Your task to perform on an android device: turn on priority inbox in the gmail app Image 0: 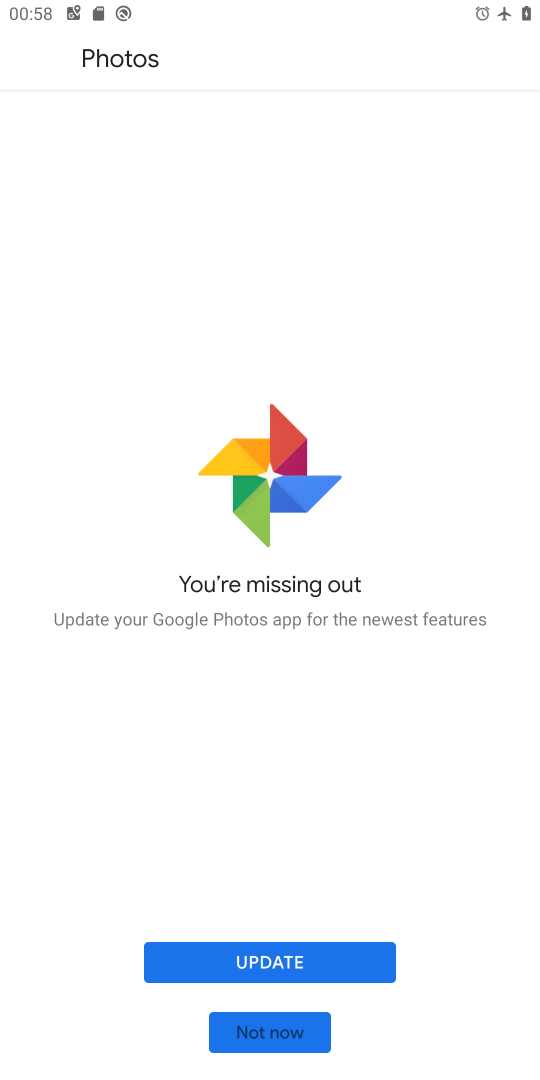
Step 0: press home button
Your task to perform on an android device: turn on priority inbox in the gmail app Image 1: 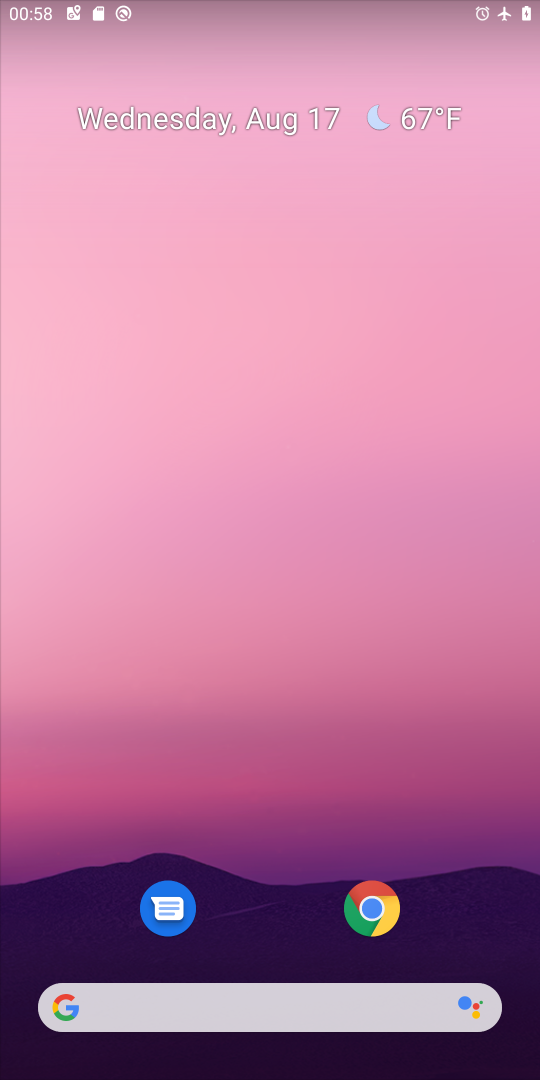
Step 1: drag from (255, 850) to (254, 116)
Your task to perform on an android device: turn on priority inbox in the gmail app Image 2: 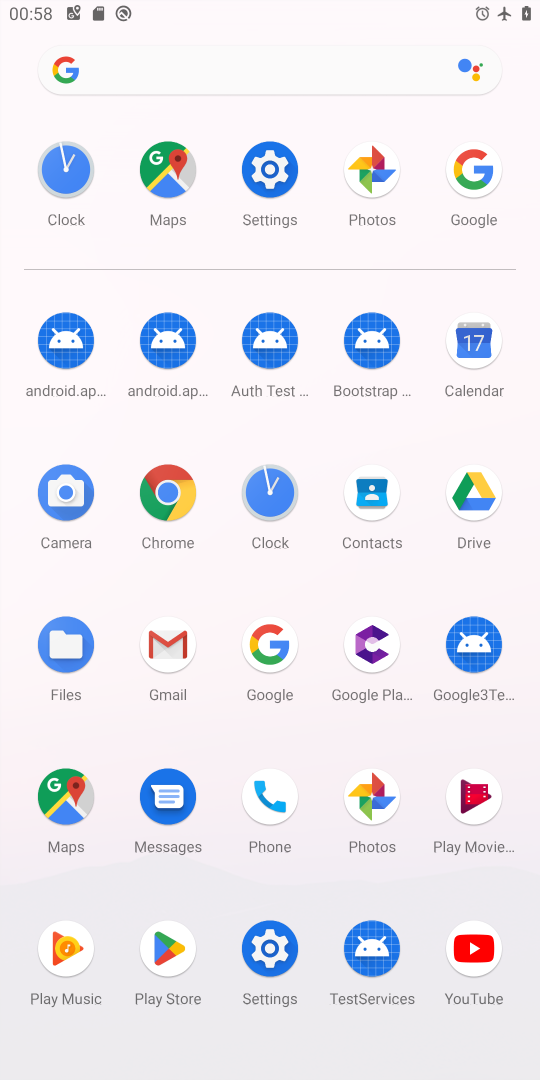
Step 2: click (159, 649)
Your task to perform on an android device: turn on priority inbox in the gmail app Image 3: 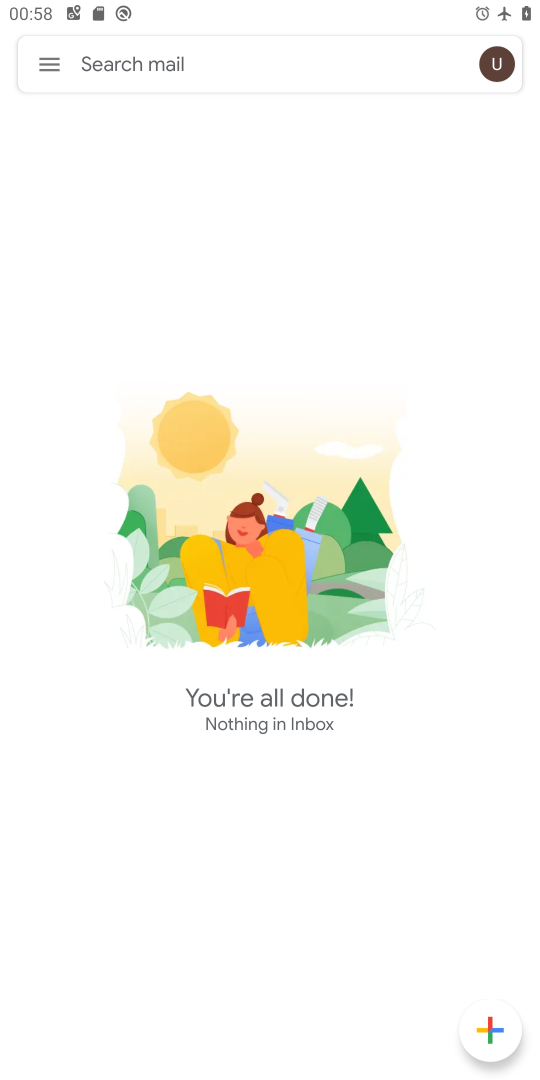
Step 3: click (44, 72)
Your task to perform on an android device: turn on priority inbox in the gmail app Image 4: 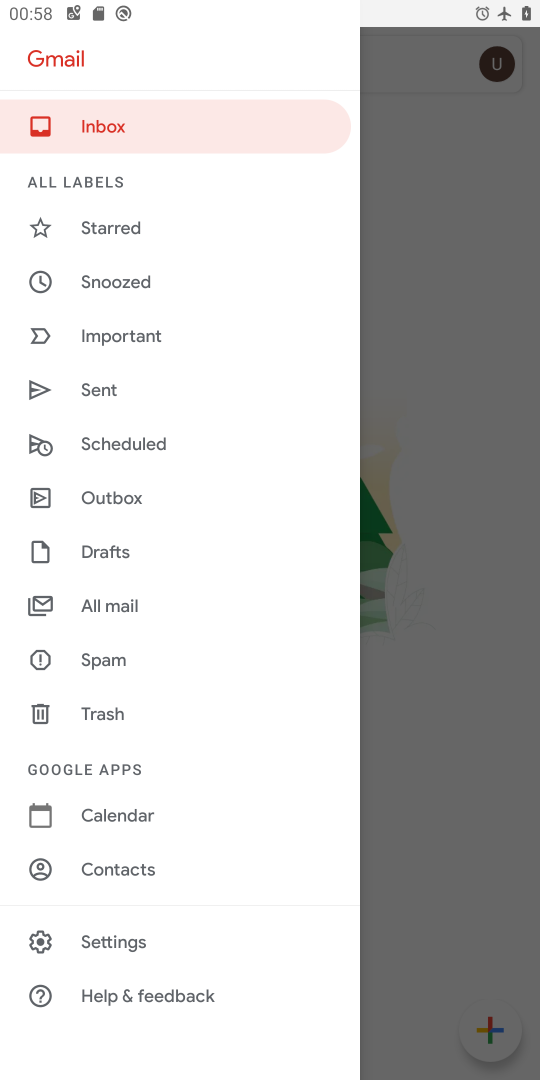
Step 4: click (106, 952)
Your task to perform on an android device: turn on priority inbox in the gmail app Image 5: 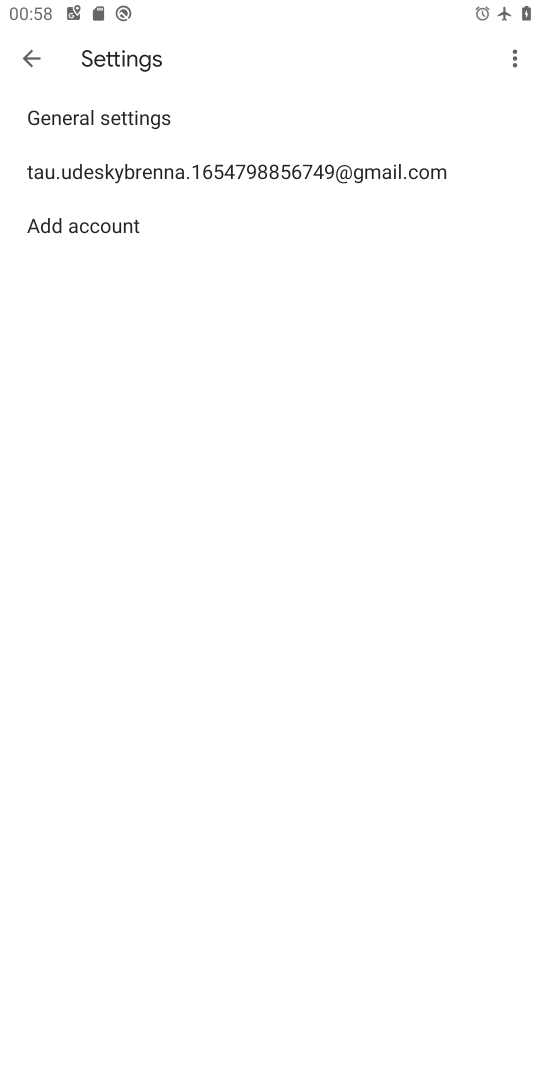
Step 5: click (242, 166)
Your task to perform on an android device: turn on priority inbox in the gmail app Image 6: 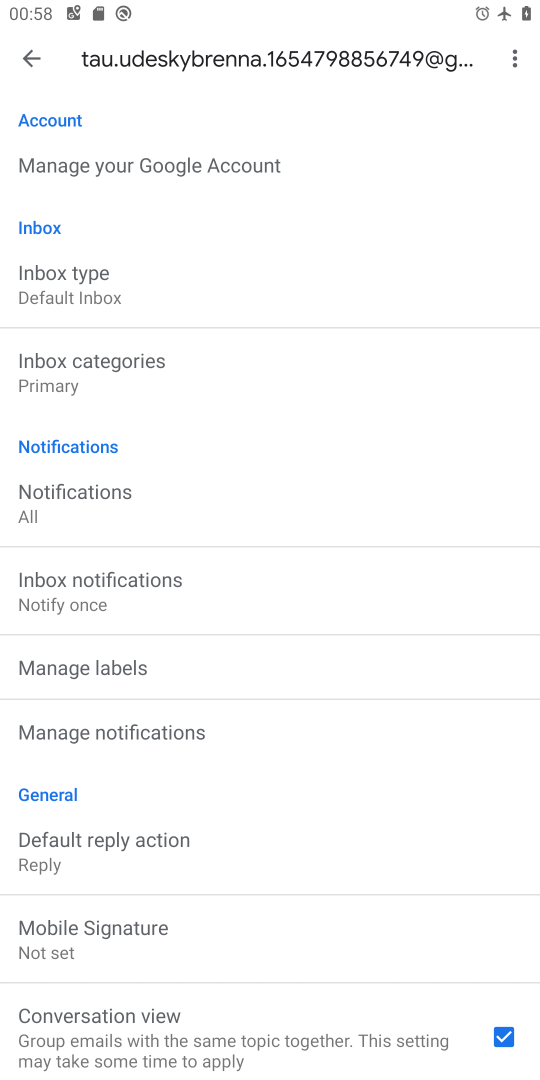
Step 6: click (124, 291)
Your task to perform on an android device: turn on priority inbox in the gmail app Image 7: 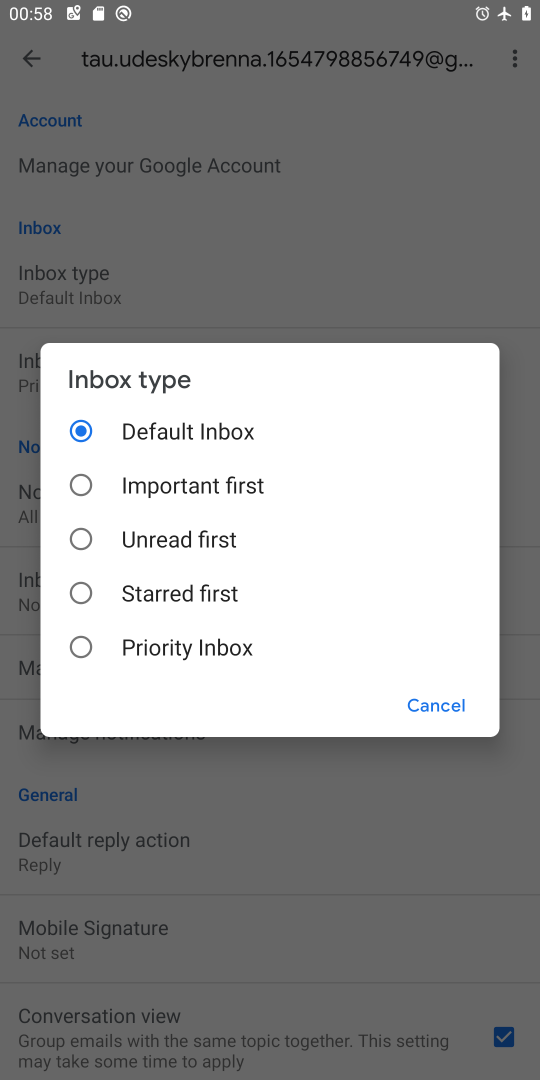
Step 7: click (173, 646)
Your task to perform on an android device: turn on priority inbox in the gmail app Image 8: 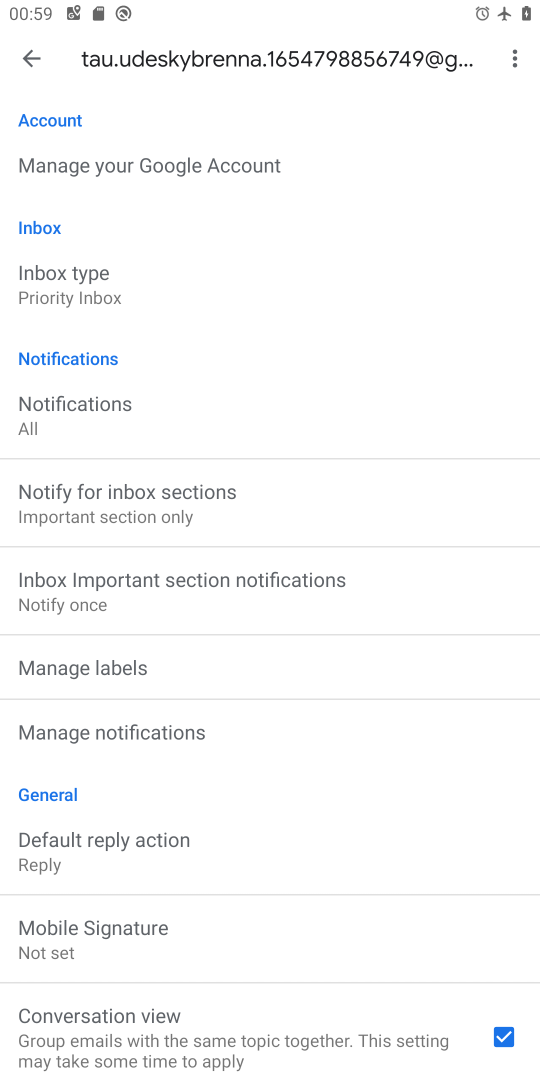
Step 8: task complete